Your task to perform on an android device: Clear the cart on walmart. Image 0: 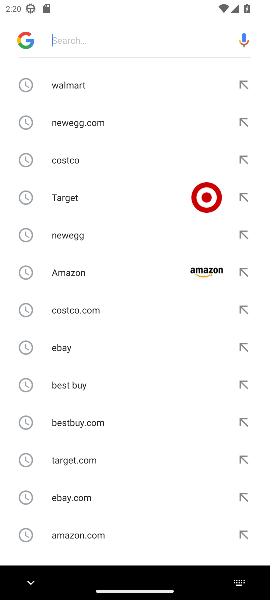
Step 0: press home button
Your task to perform on an android device: Clear the cart on walmart. Image 1: 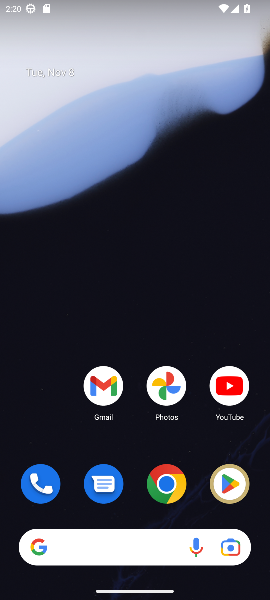
Step 1: click (170, 483)
Your task to perform on an android device: Clear the cart on walmart. Image 2: 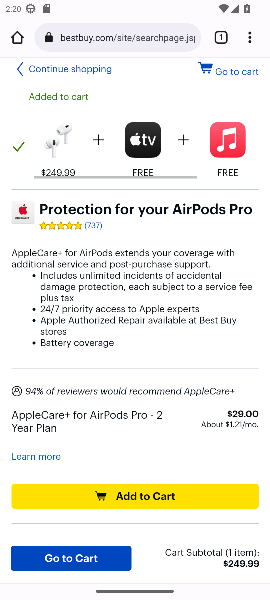
Step 2: click (99, 39)
Your task to perform on an android device: Clear the cart on walmart. Image 3: 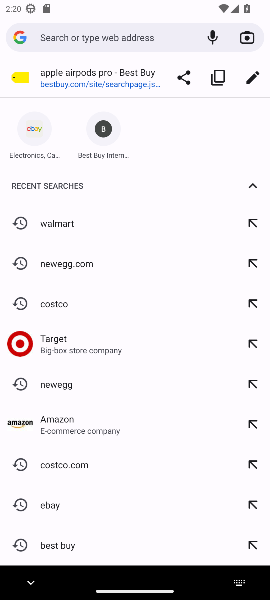
Step 3: click (89, 221)
Your task to perform on an android device: Clear the cart on walmart. Image 4: 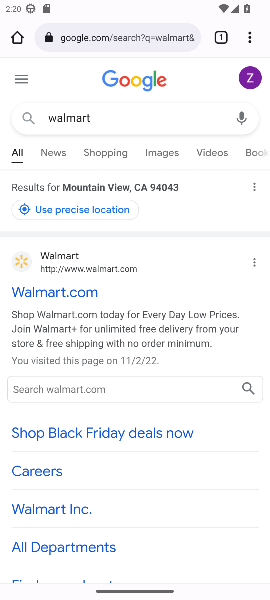
Step 4: click (61, 295)
Your task to perform on an android device: Clear the cart on walmart. Image 5: 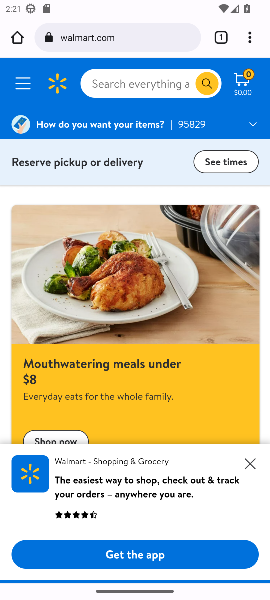
Step 5: click (256, 83)
Your task to perform on an android device: Clear the cart on walmart. Image 6: 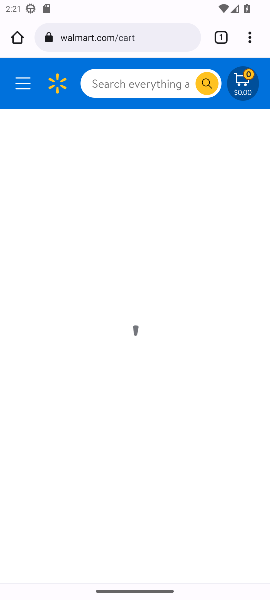
Step 6: click (168, 319)
Your task to perform on an android device: Clear the cart on walmart. Image 7: 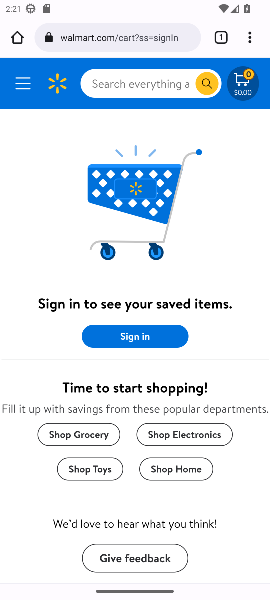
Step 7: click (168, 319)
Your task to perform on an android device: Clear the cart on walmart. Image 8: 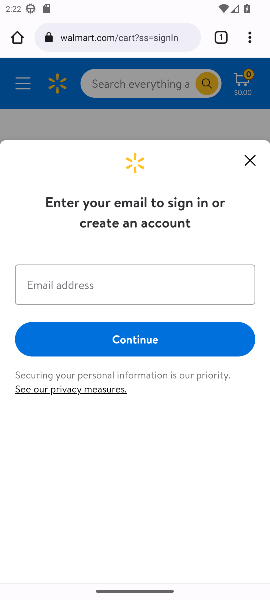
Step 8: click (244, 164)
Your task to perform on an android device: Clear the cart on walmart. Image 9: 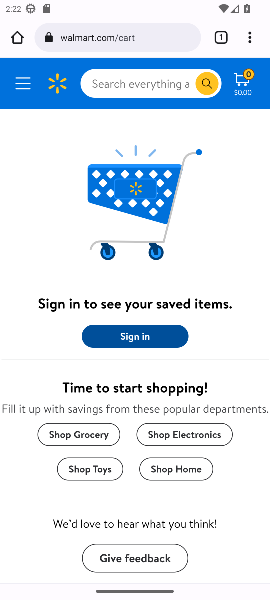
Step 9: task complete